Your task to perform on an android device: turn on priority inbox in the gmail app Image 0: 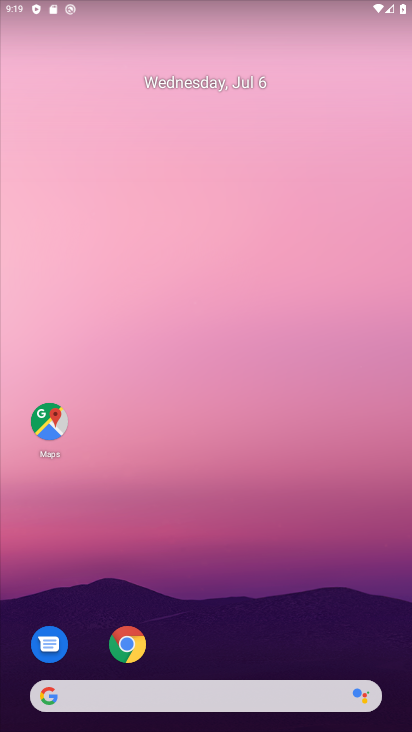
Step 0: press back button
Your task to perform on an android device: turn on priority inbox in the gmail app Image 1: 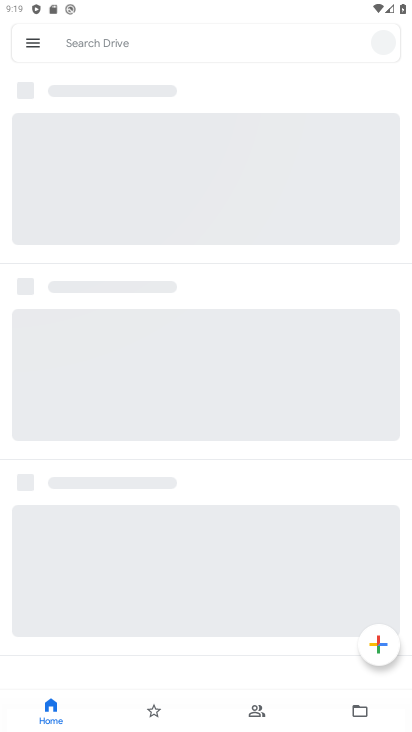
Step 1: drag from (226, 710) to (156, 341)
Your task to perform on an android device: turn on priority inbox in the gmail app Image 2: 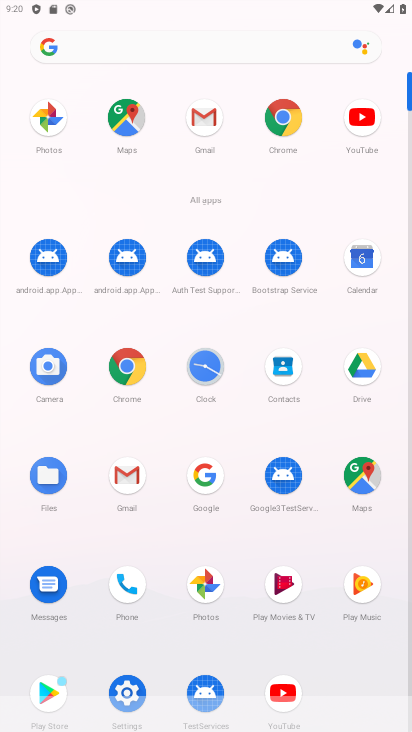
Step 2: click (121, 479)
Your task to perform on an android device: turn on priority inbox in the gmail app Image 3: 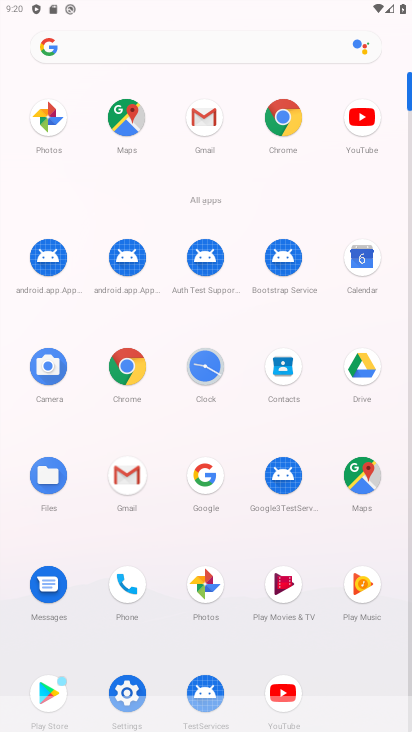
Step 3: click (121, 478)
Your task to perform on an android device: turn on priority inbox in the gmail app Image 4: 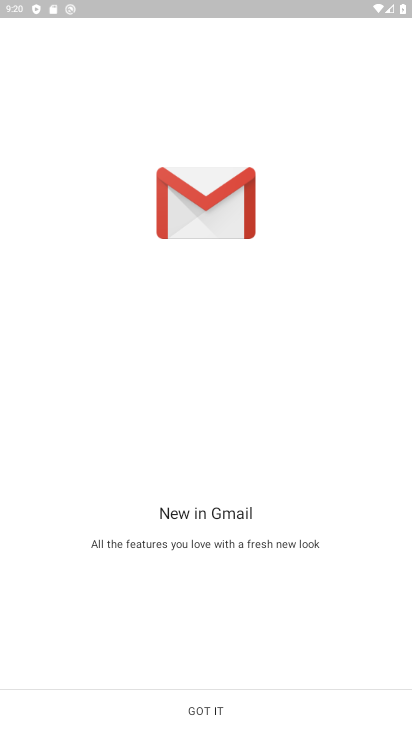
Step 4: click (250, 703)
Your task to perform on an android device: turn on priority inbox in the gmail app Image 5: 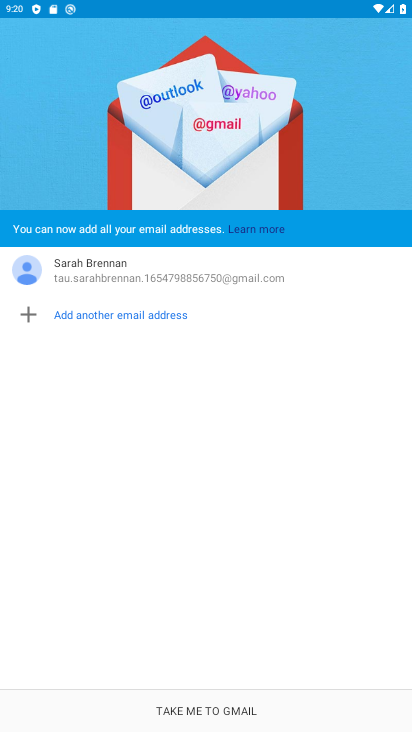
Step 5: click (251, 702)
Your task to perform on an android device: turn on priority inbox in the gmail app Image 6: 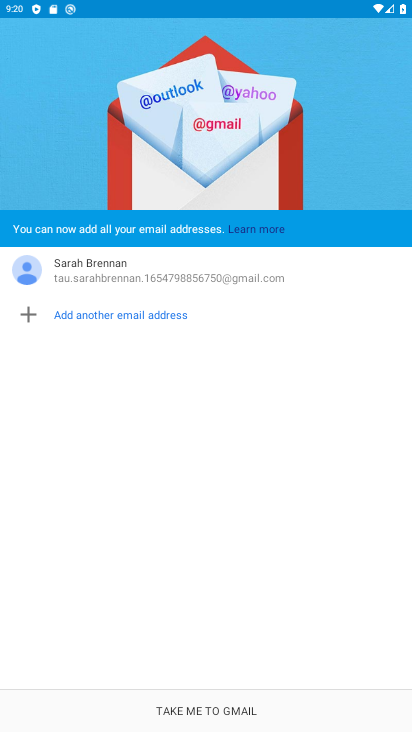
Step 6: click (251, 702)
Your task to perform on an android device: turn on priority inbox in the gmail app Image 7: 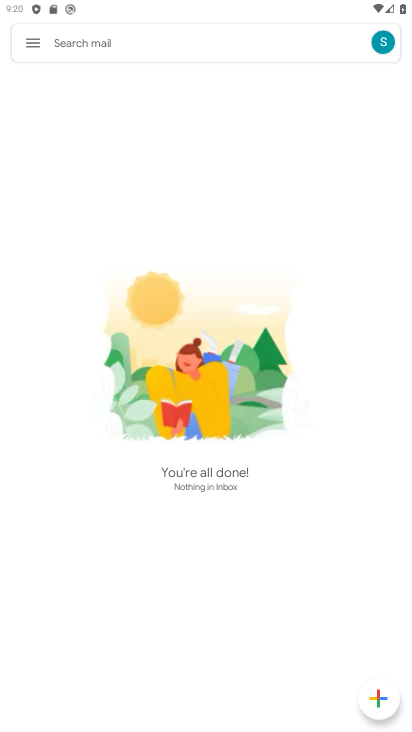
Step 7: click (32, 49)
Your task to perform on an android device: turn on priority inbox in the gmail app Image 8: 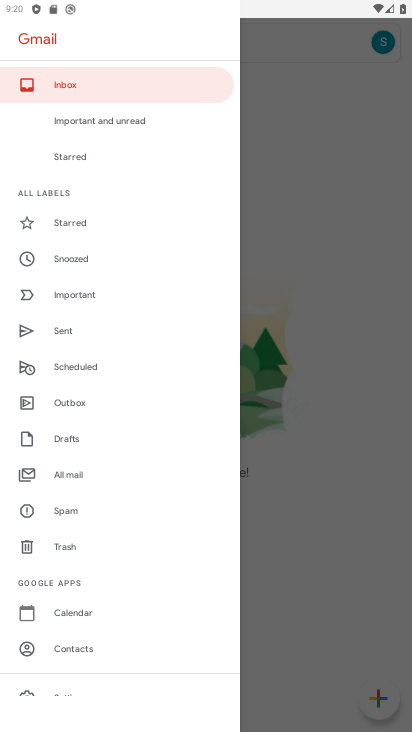
Step 8: drag from (78, 565) to (2, 276)
Your task to perform on an android device: turn on priority inbox in the gmail app Image 9: 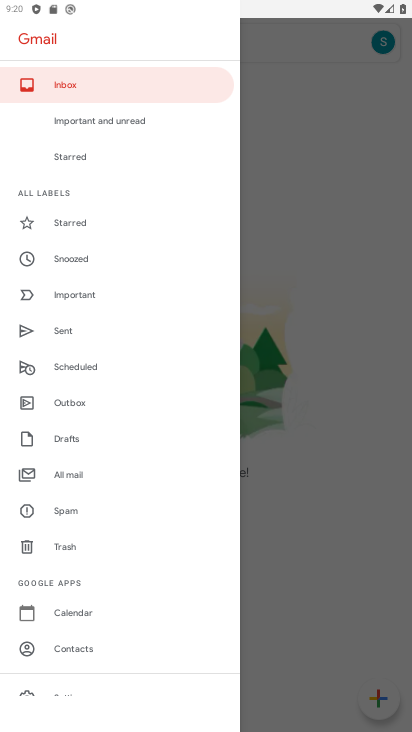
Step 9: drag from (98, 469) to (94, 254)
Your task to perform on an android device: turn on priority inbox in the gmail app Image 10: 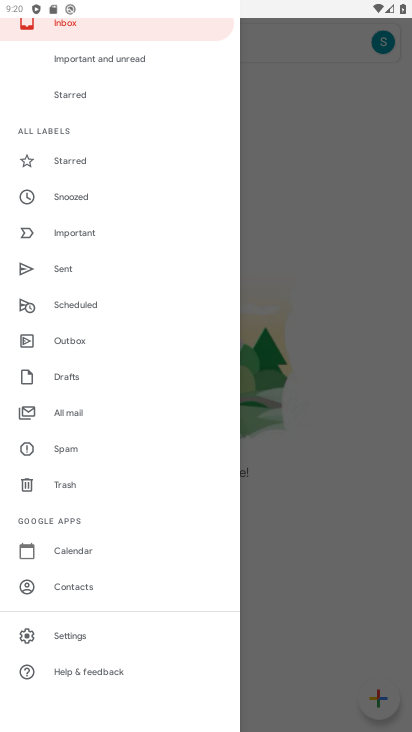
Step 10: click (67, 634)
Your task to perform on an android device: turn on priority inbox in the gmail app Image 11: 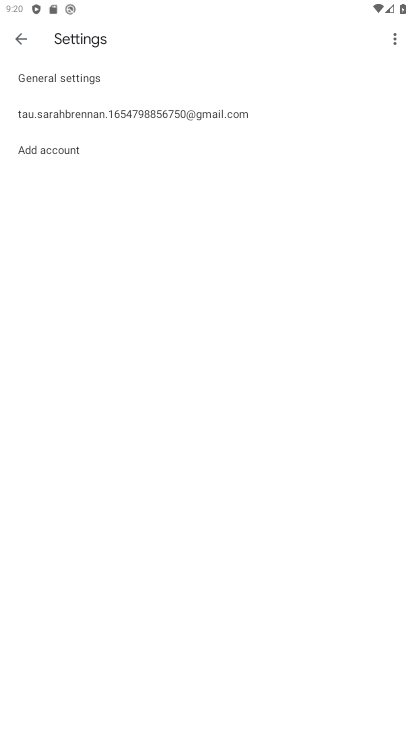
Step 11: click (59, 111)
Your task to perform on an android device: turn on priority inbox in the gmail app Image 12: 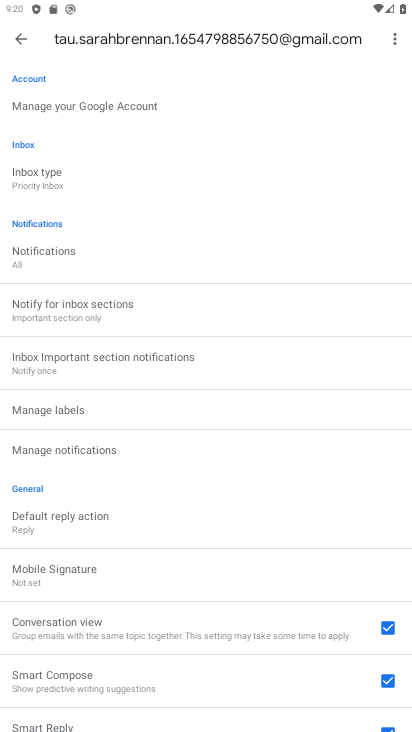
Step 12: click (44, 192)
Your task to perform on an android device: turn on priority inbox in the gmail app Image 13: 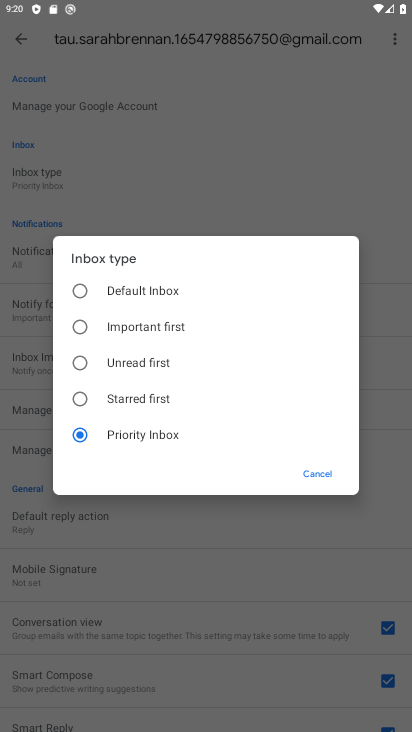
Step 13: click (308, 468)
Your task to perform on an android device: turn on priority inbox in the gmail app Image 14: 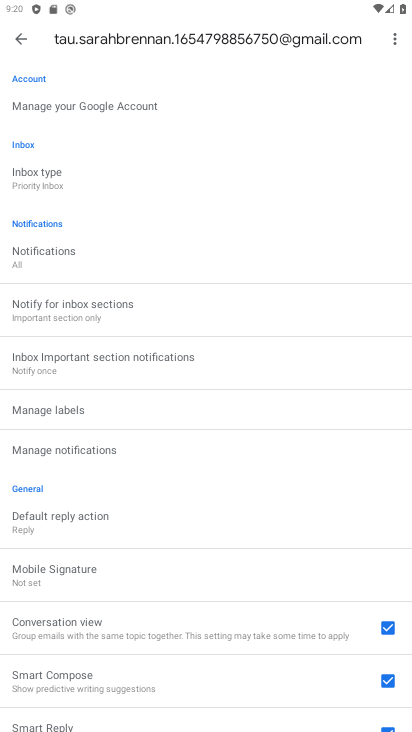
Step 14: task complete